Your task to perform on an android device: Open the calendar app, open the side menu, and click the "Day" option Image 0: 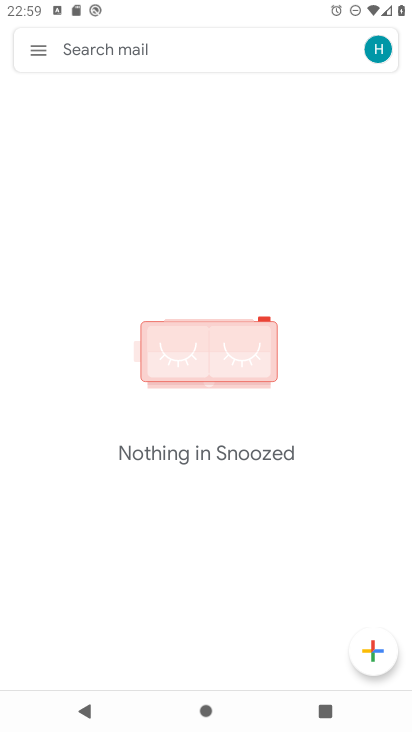
Step 0: press home button
Your task to perform on an android device: Open the calendar app, open the side menu, and click the "Day" option Image 1: 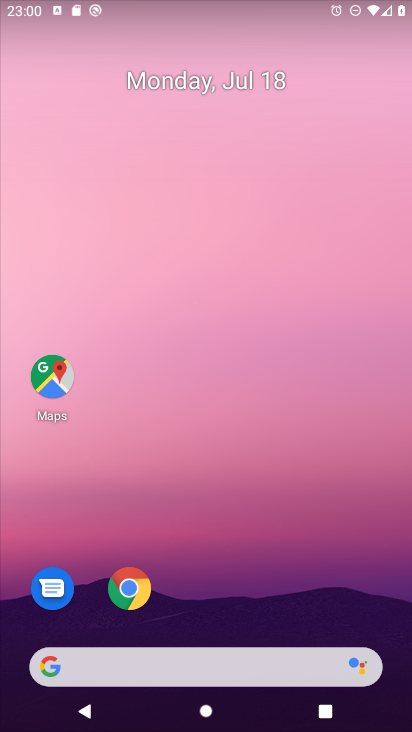
Step 1: drag from (377, 608) to (321, 137)
Your task to perform on an android device: Open the calendar app, open the side menu, and click the "Day" option Image 2: 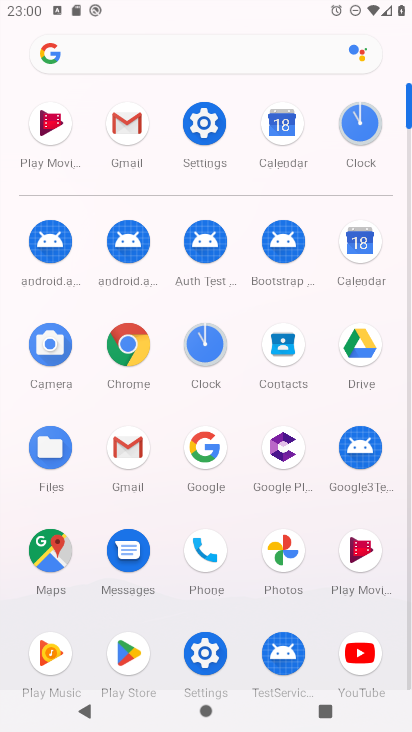
Step 2: click (359, 243)
Your task to perform on an android device: Open the calendar app, open the side menu, and click the "Day" option Image 3: 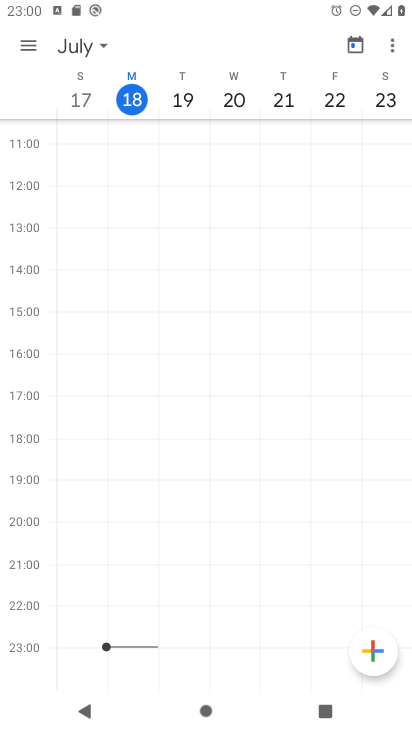
Step 3: click (33, 45)
Your task to perform on an android device: Open the calendar app, open the side menu, and click the "Day" option Image 4: 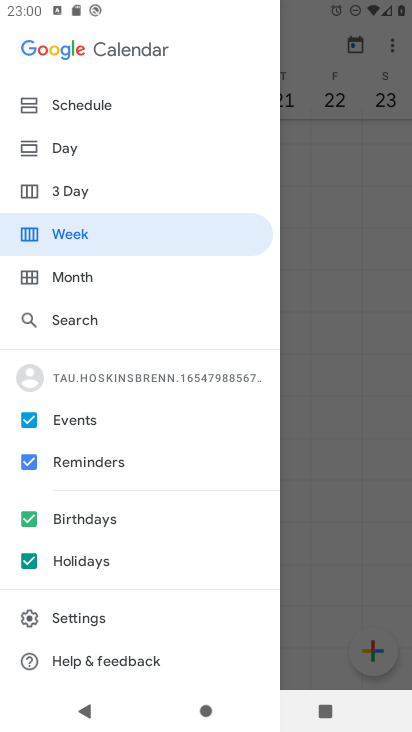
Step 4: click (67, 145)
Your task to perform on an android device: Open the calendar app, open the side menu, and click the "Day" option Image 5: 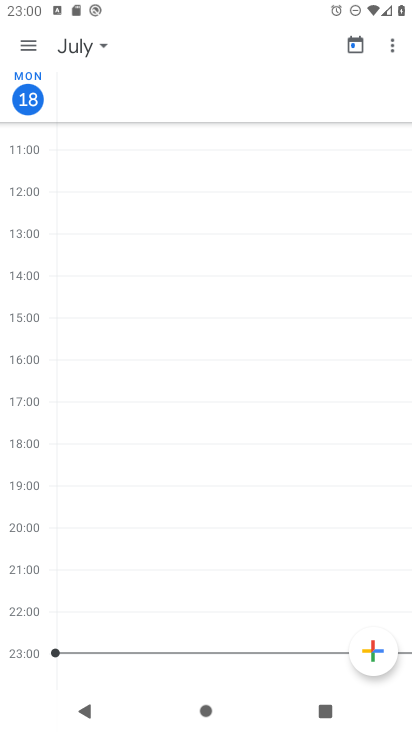
Step 5: task complete